Your task to perform on an android device: Go to Google maps Image 0: 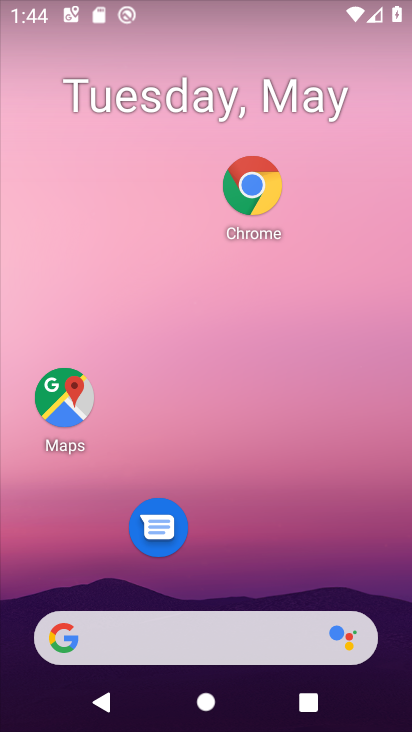
Step 0: click (67, 403)
Your task to perform on an android device: Go to Google maps Image 1: 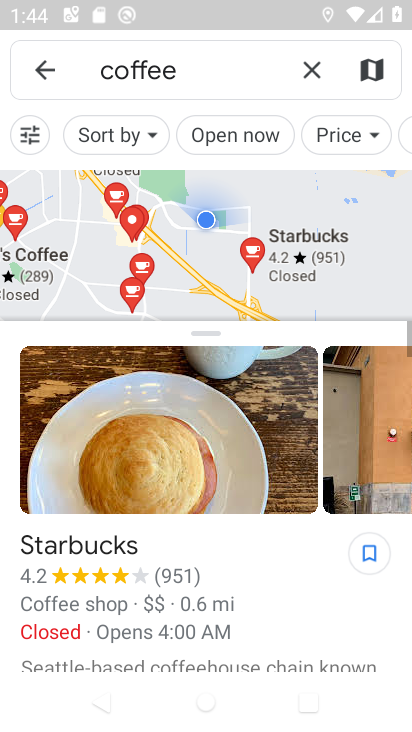
Step 1: click (312, 64)
Your task to perform on an android device: Go to Google maps Image 2: 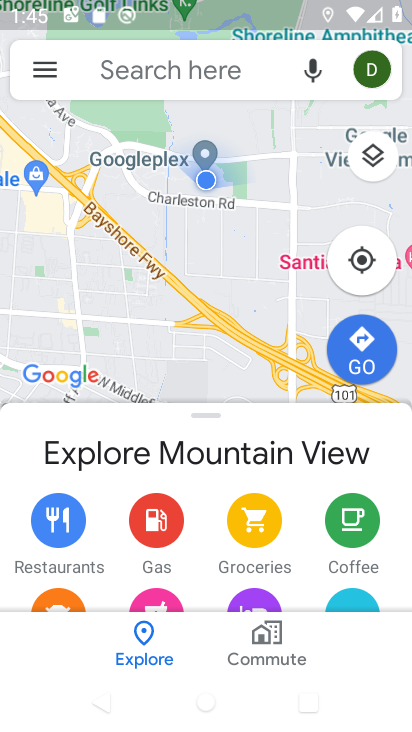
Step 2: task complete